Your task to perform on an android device: open app "The Home Depot" (install if not already installed) and enter user name: "taproot@icloud.com" and password: "executions" Image 0: 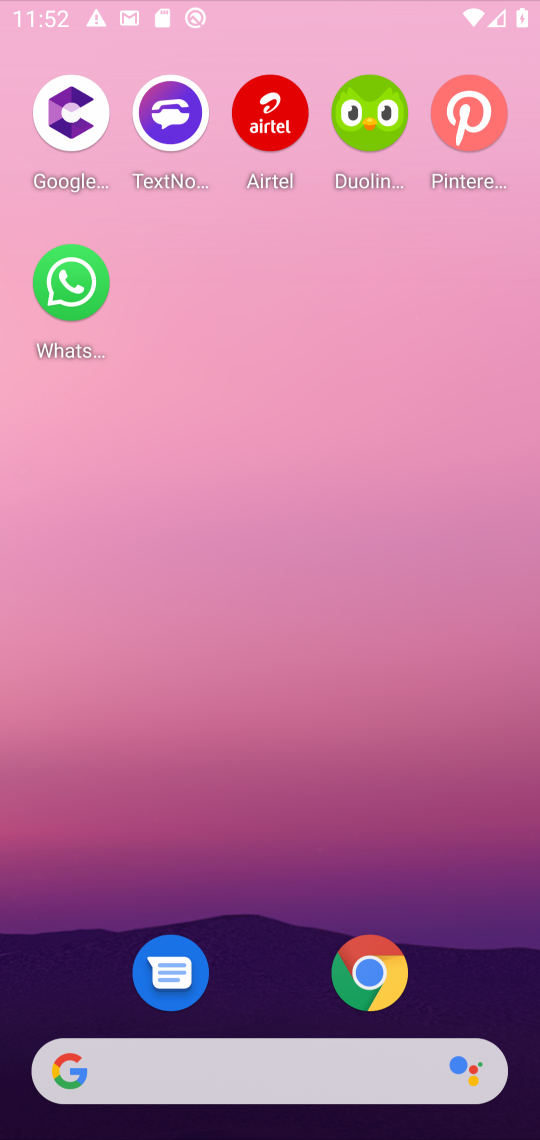
Step 0: press home button
Your task to perform on an android device: open app "The Home Depot" (install if not already installed) and enter user name: "taproot@icloud.com" and password: "executions" Image 1: 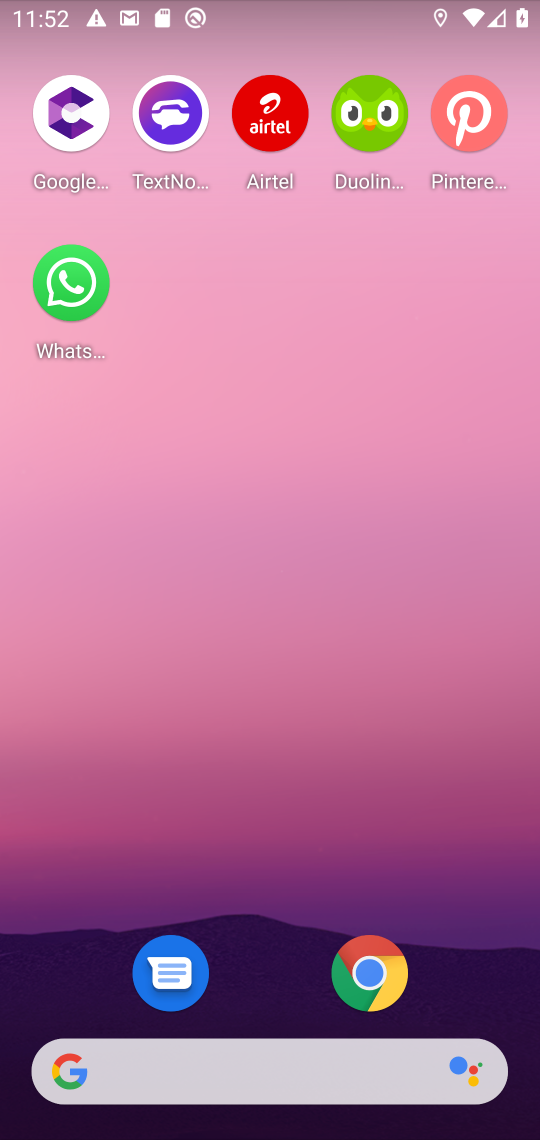
Step 1: drag from (266, 1013) to (201, 153)
Your task to perform on an android device: open app "The Home Depot" (install if not already installed) and enter user name: "taproot@icloud.com" and password: "executions" Image 2: 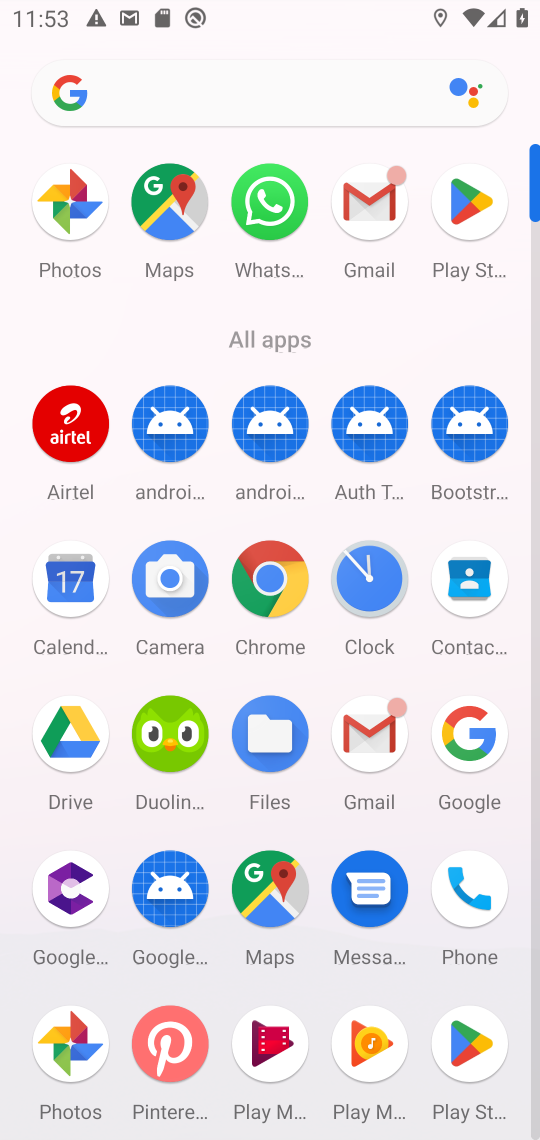
Step 2: click (458, 206)
Your task to perform on an android device: open app "The Home Depot" (install if not already installed) and enter user name: "taproot@icloud.com" and password: "executions" Image 3: 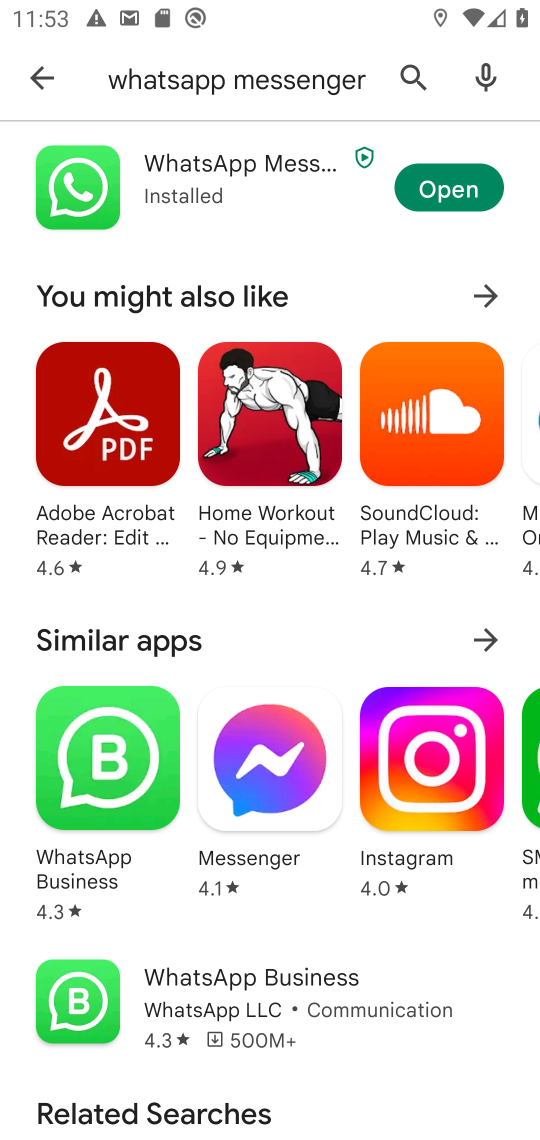
Step 3: click (408, 74)
Your task to perform on an android device: open app "The Home Depot" (install if not already installed) and enter user name: "taproot@icloud.com" and password: "executions" Image 4: 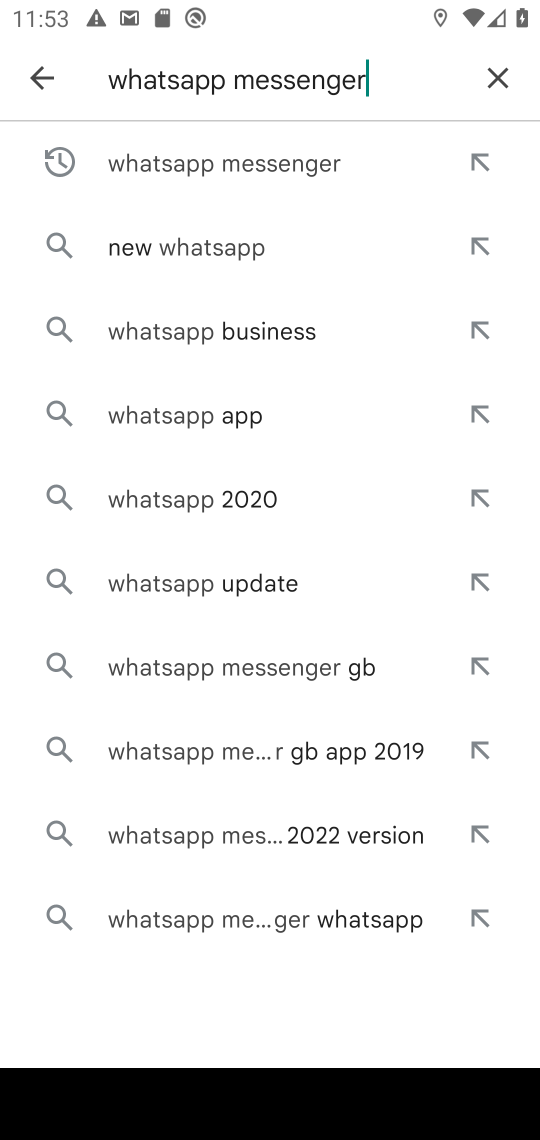
Step 4: click (500, 69)
Your task to perform on an android device: open app "The Home Depot" (install if not already installed) and enter user name: "taproot@icloud.com" and password: "executions" Image 5: 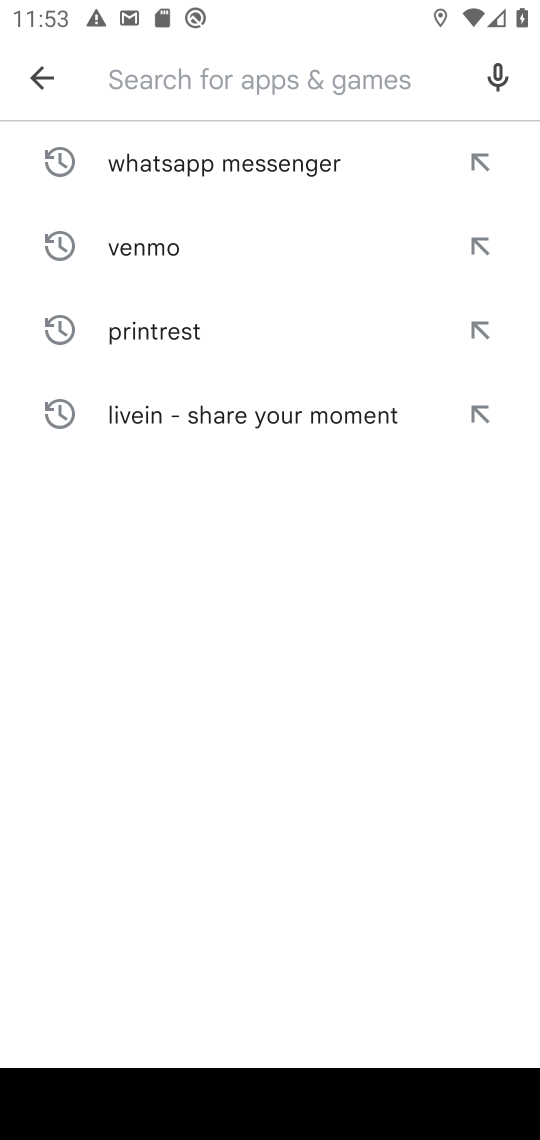
Step 5: type "The Home Depot"
Your task to perform on an android device: open app "The Home Depot" (install if not already installed) and enter user name: "taproot@icloud.com" and password: "executions" Image 6: 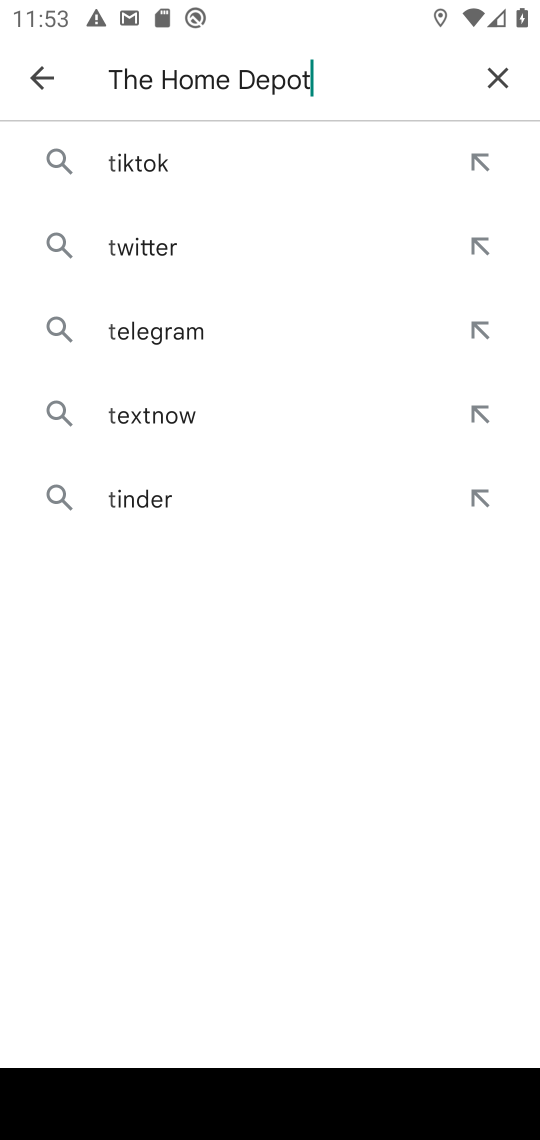
Step 6: type ""
Your task to perform on an android device: open app "The Home Depot" (install if not already installed) and enter user name: "taproot@icloud.com" and password: "executions" Image 7: 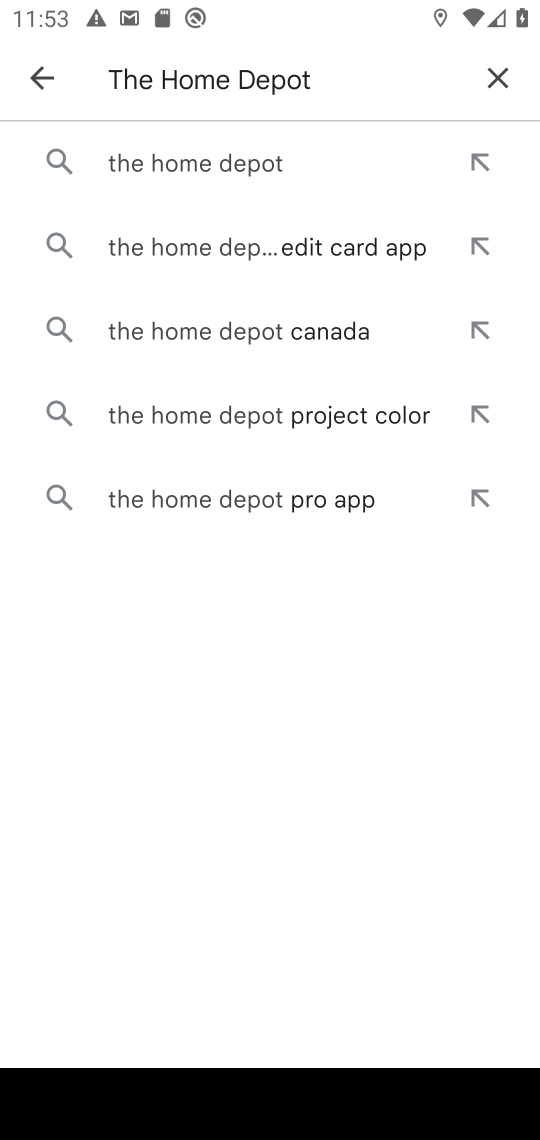
Step 7: click (213, 158)
Your task to perform on an android device: open app "The Home Depot" (install if not already installed) and enter user name: "taproot@icloud.com" and password: "executions" Image 8: 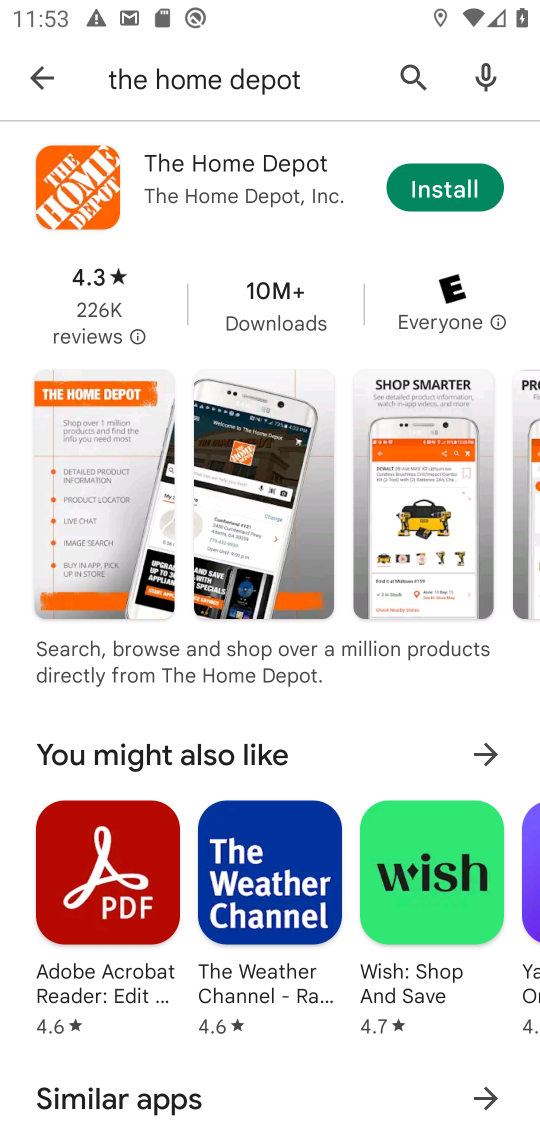
Step 8: click (439, 187)
Your task to perform on an android device: open app "The Home Depot" (install if not already installed) and enter user name: "taproot@icloud.com" and password: "executions" Image 9: 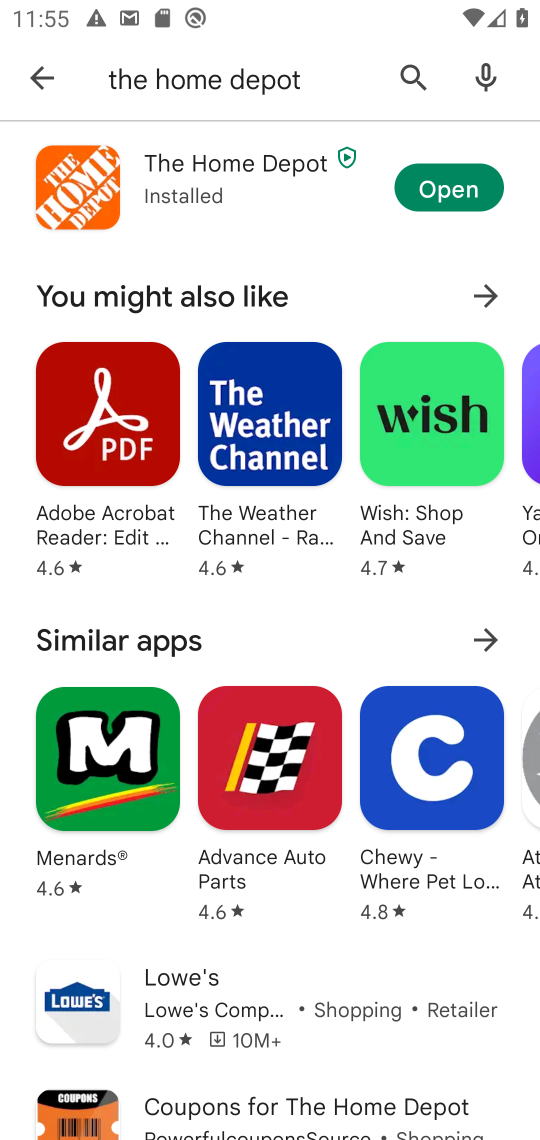
Step 9: click (436, 188)
Your task to perform on an android device: open app "The Home Depot" (install if not already installed) and enter user name: "taproot@icloud.com" and password: "executions" Image 10: 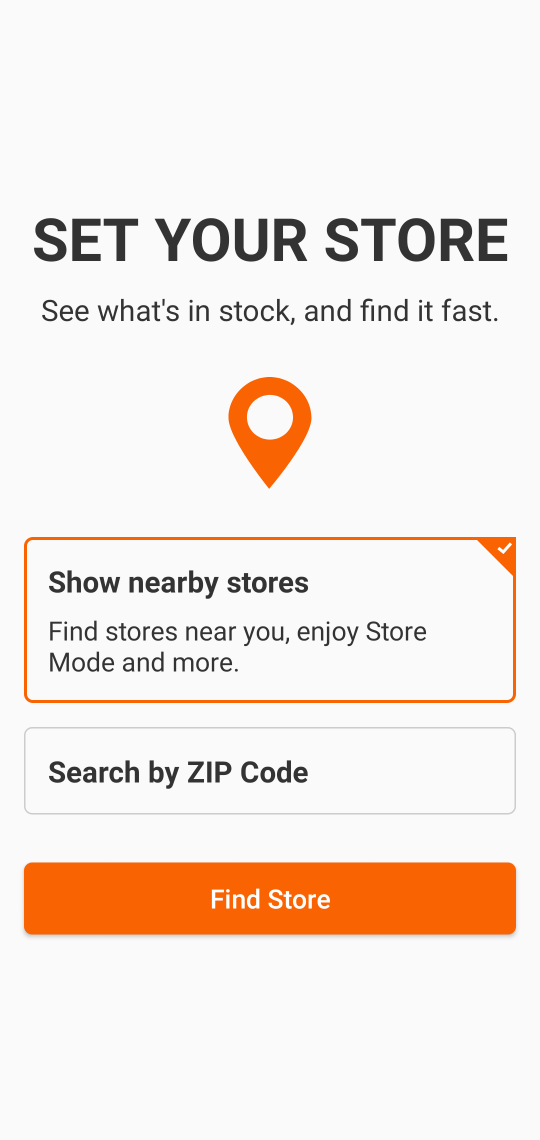
Step 10: task complete